Your task to perform on an android device: Open location settings Image 0: 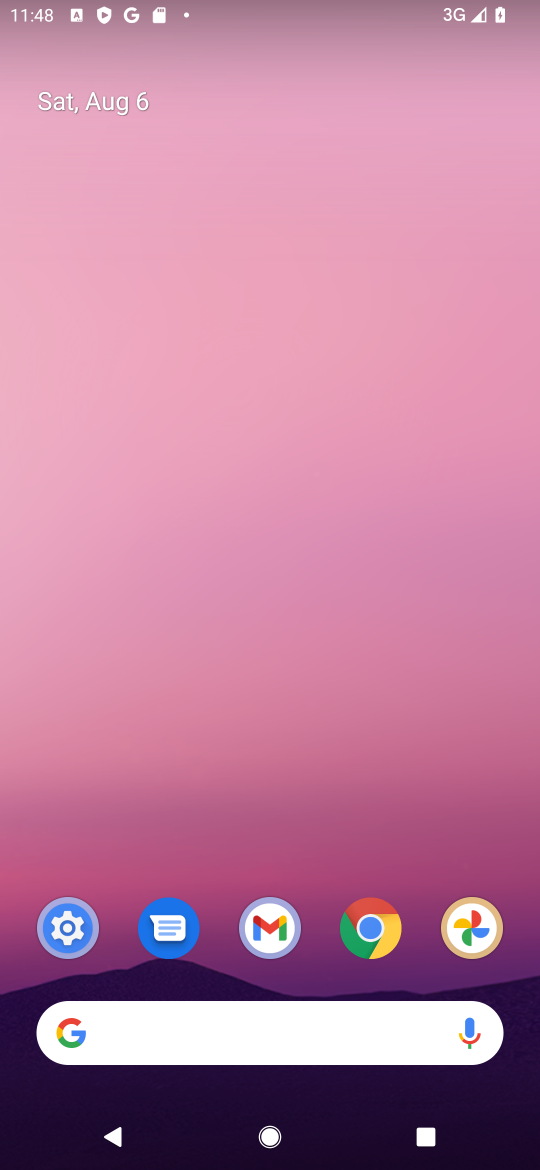
Step 0: click (71, 942)
Your task to perform on an android device: Open location settings Image 1: 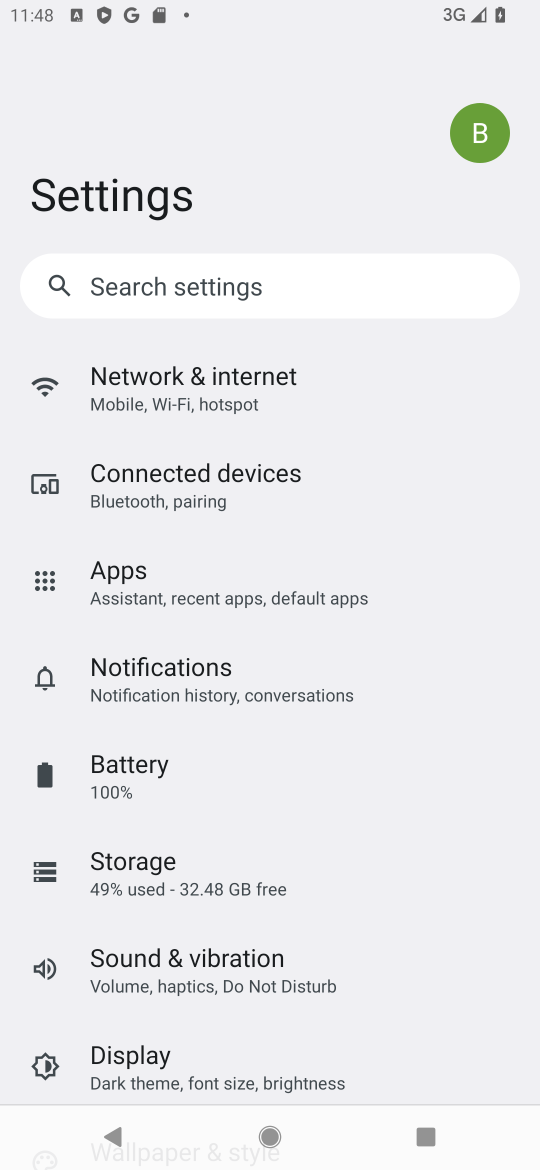
Step 1: drag from (349, 870) to (347, 526)
Your task to perform on an android device: Open location settings Image 2: 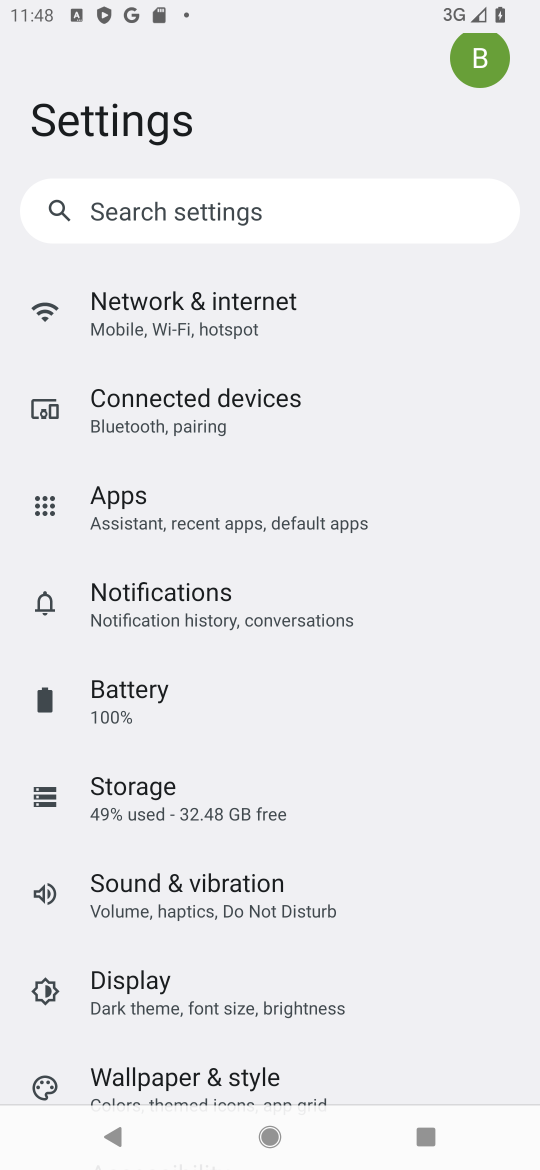
Step 2: drag from (404, 776) to (305, 55)
Your task to perform on an android device: Open location settings Image 3: 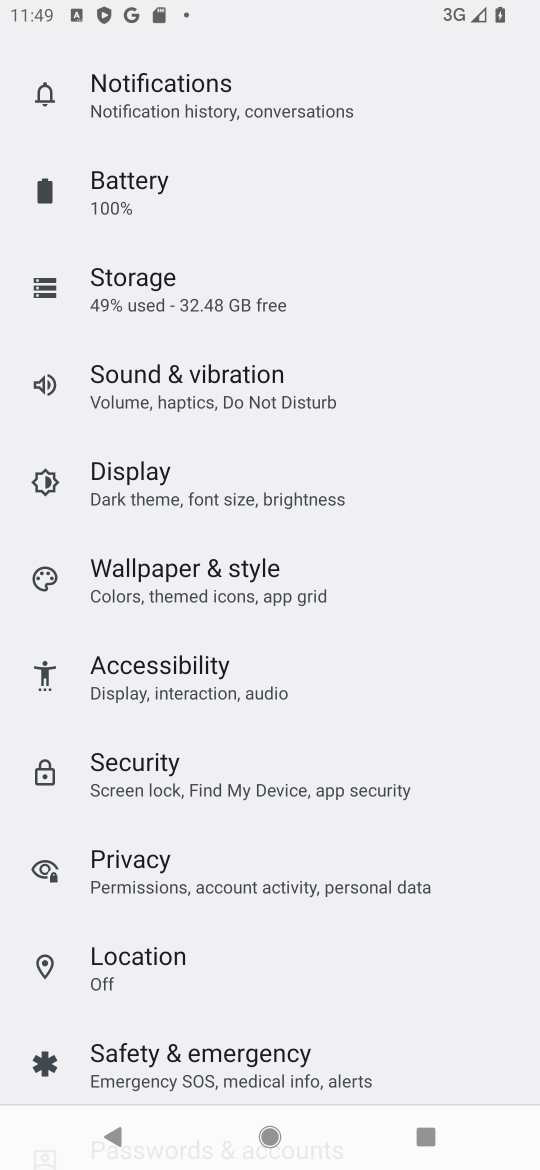
Step 3: click (137, 963)
Your task to perform on an android device: Open location settings Image 4: 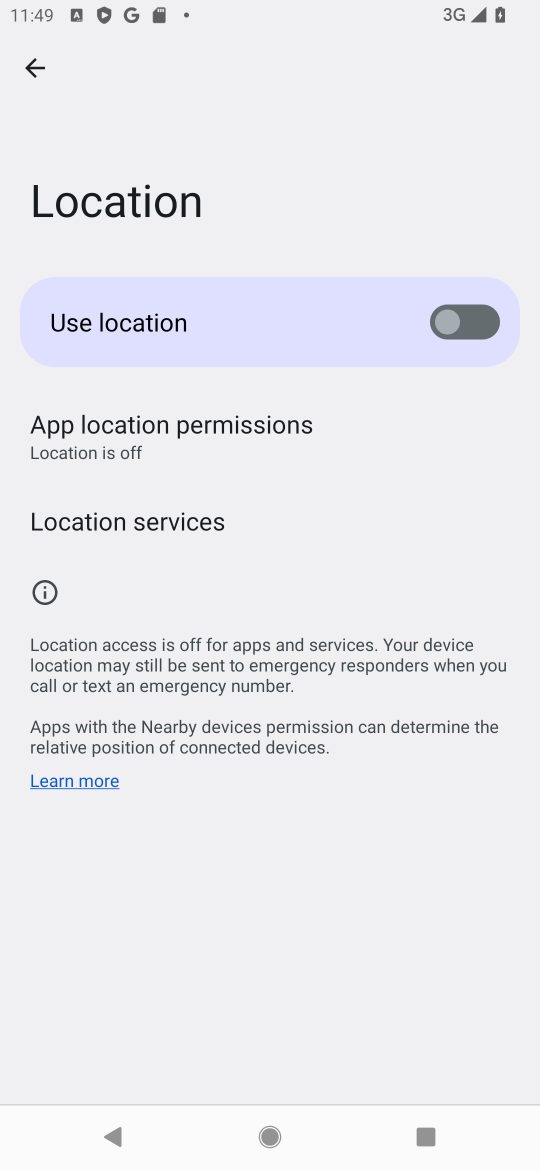
Step 4: click (438, 328)
Your task to perform on an android device: Open location settings Image 5: 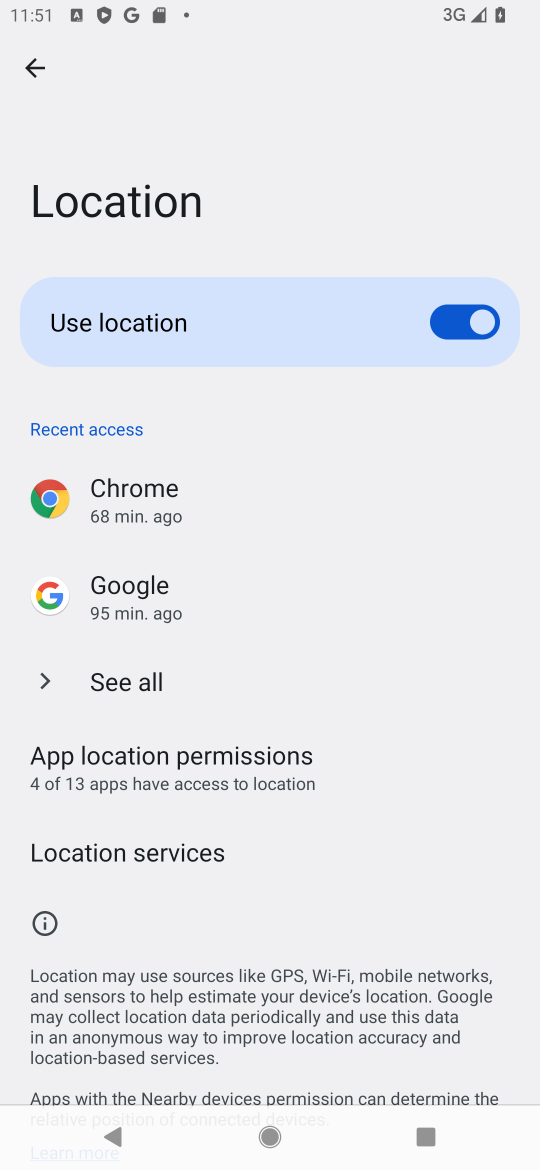
Step 5: task complete